Your task to perform on an android device: move a message to another label in the gmail app Image 0: 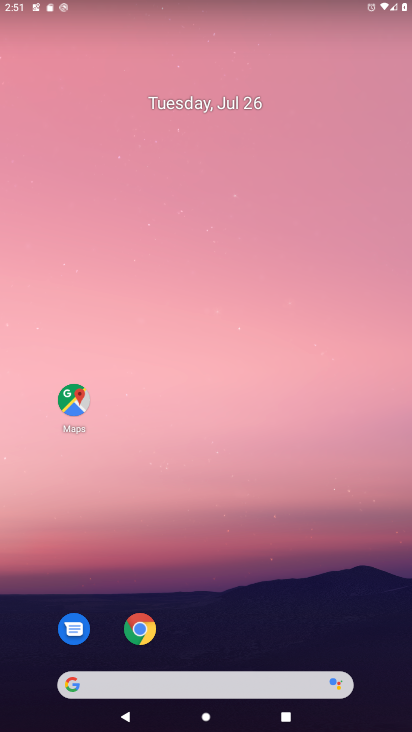
Step 0: drag from (189, 635) to (145, 230)
Your task to perform on an android device: move a message to another label in the gmail app Image 1: 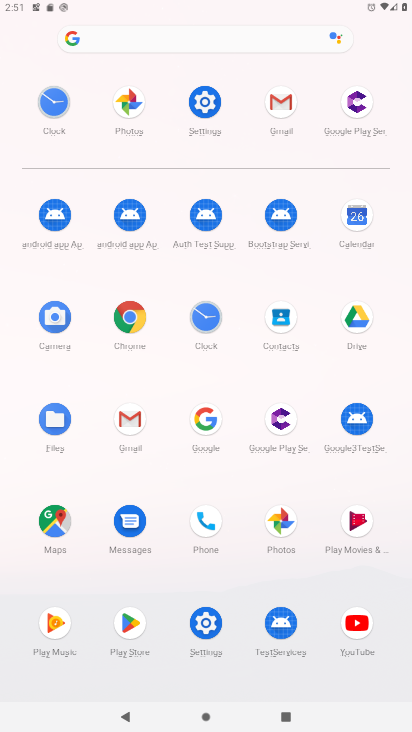
Step 1: click (273, 123)
Your task to perform on an android device: move a message to another label in the gmail app Image 2: 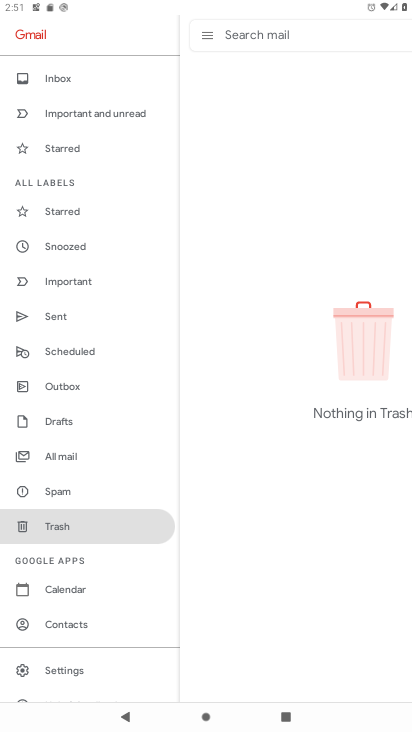
Step 2: click (80, 661)
Your task to perform on an android device: move a message to another label in the gmail app Image 3: 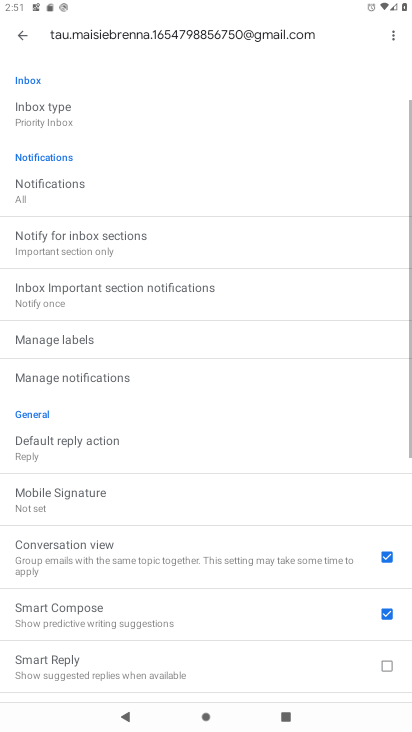
Step 3: click (26, 26)
Your task to perform on an android device: move a message to another label in the gmail app Image 4: 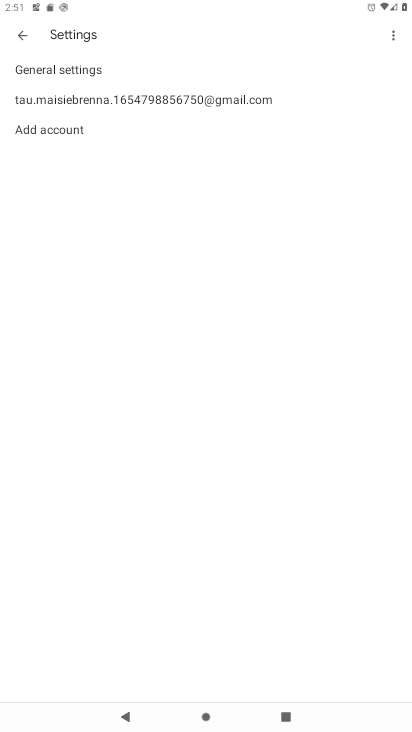
Step 4: click (28, 33)
Your task to perform on an android device: move a message to another label in the gmail app Image 5: 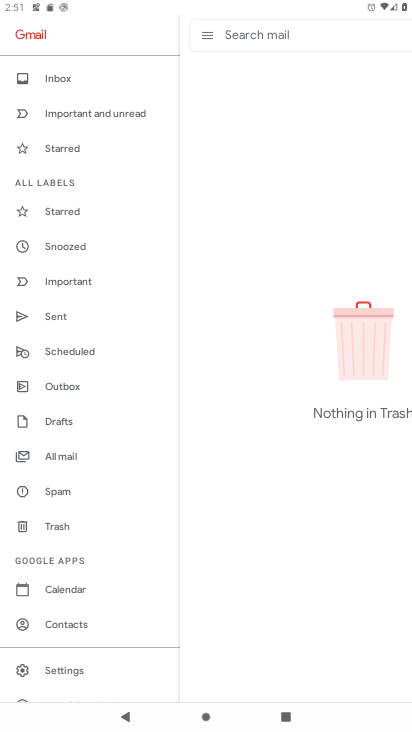
Step 5: click (70, 456)
Your task to perform on an android device: move a message to another label in the gmail app Image 6: 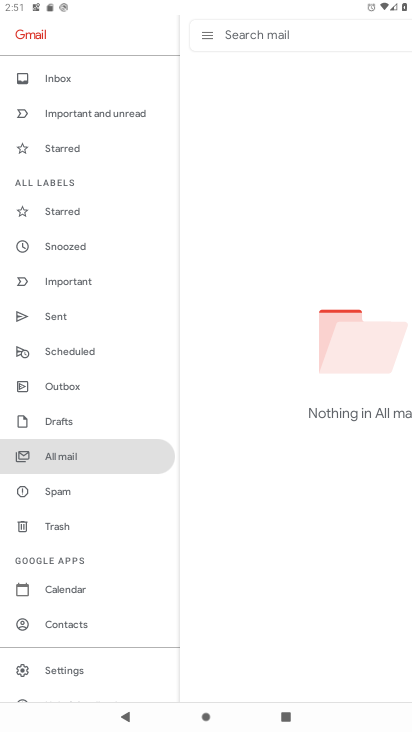
Step 6: task complete